Your task to perform on an android device: turn notification dots off Image 0: 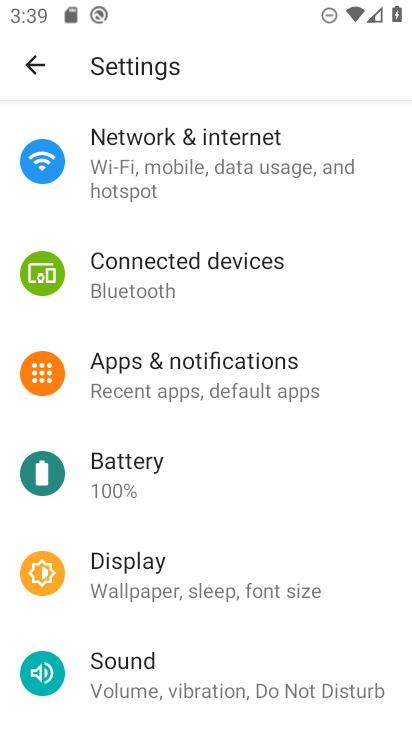
Step 0: drag from (355, 616) to (354, 490)
Your task to perform on an android device: turn notification dots off Image 1: 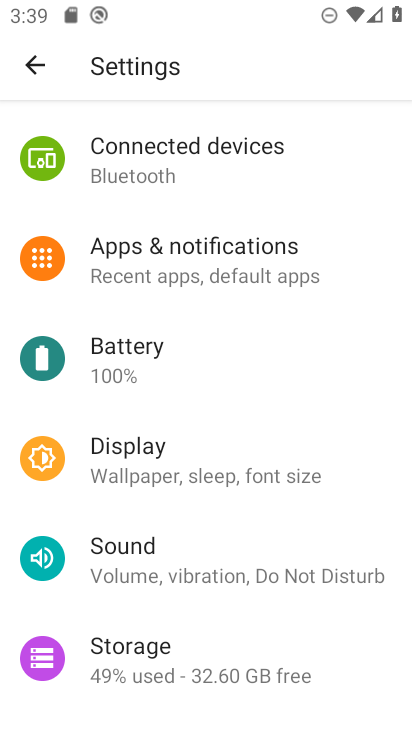
Step 1: drag from (354, 630) to (361, 525)
Your task to perform on an android device: turn notification dots off Image 2: 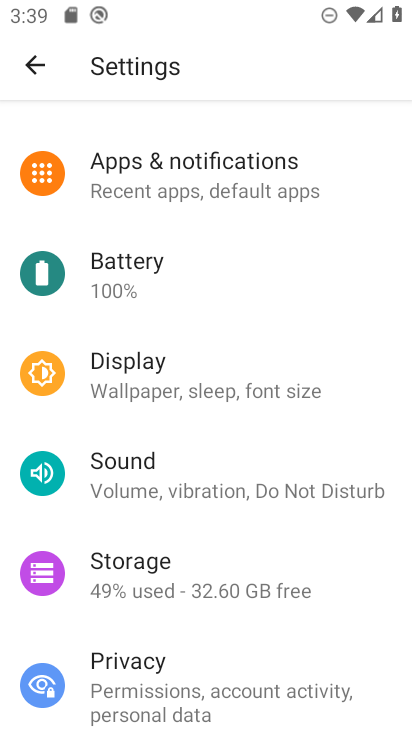
Step 2: drag from (356, 627) to (352, 514)
Your task to perform on an android device: turn notification dots off Image 3: 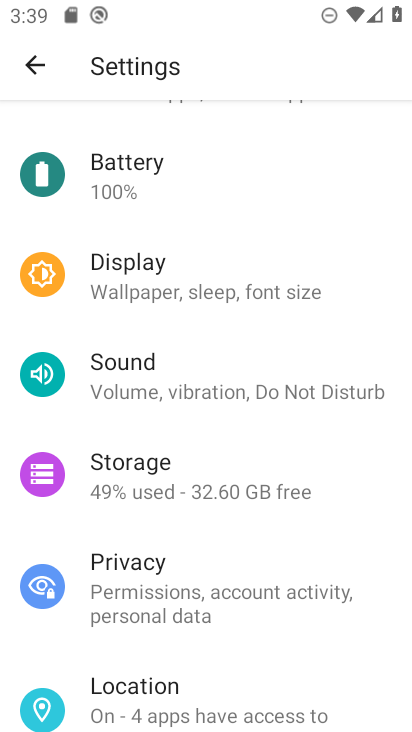
Step 3: drag from (352, 647) to (349, 518)
Your task to perform on an android device: turn notification dots off Image 4: 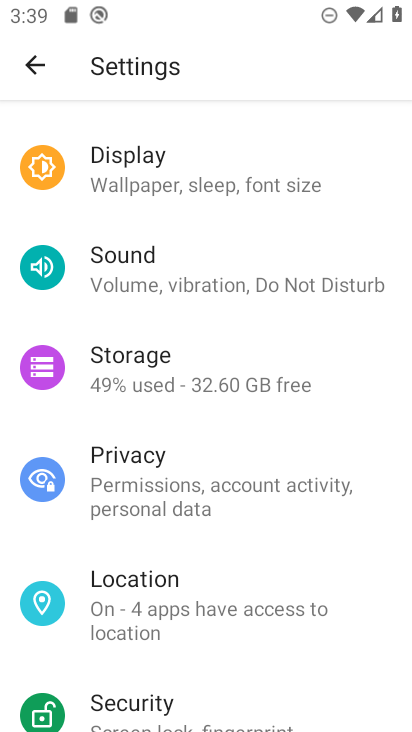
Step 4: drag from (366, 666) to (361, 550)
Your task to perform on an android device: turn notification dots off Image 5: 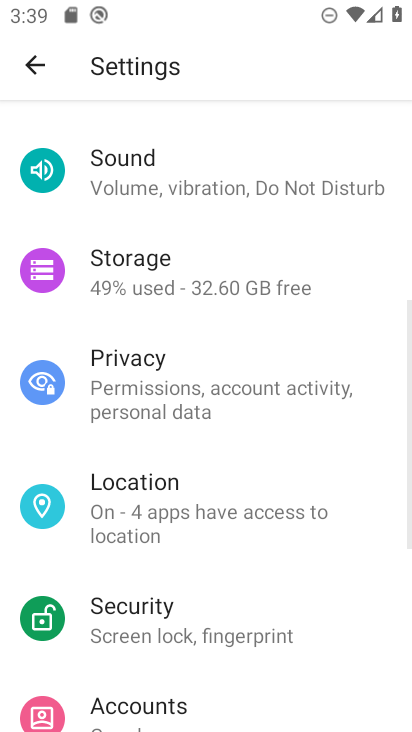
Step 5: drag from (361, 667) to (359, 545)
Your task to perform on an android device: turn notification dots off Image 6: 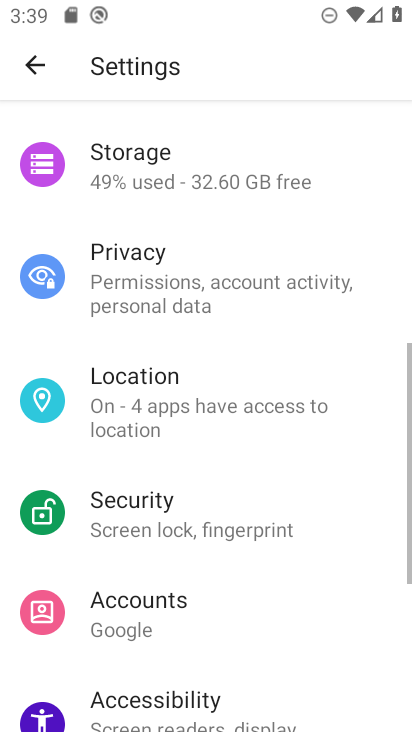
Step 6: drag from (342, 661) to (333, 554)
Your task to perform on an android device: turn notification dots off Image 7: 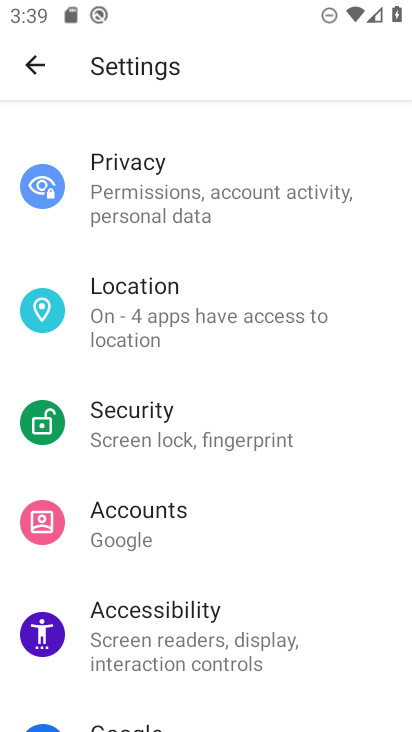
Step 7: drag from (330, 646) to (335, 534)
Your task to perform on an android device: turn notification dots off Image 8: 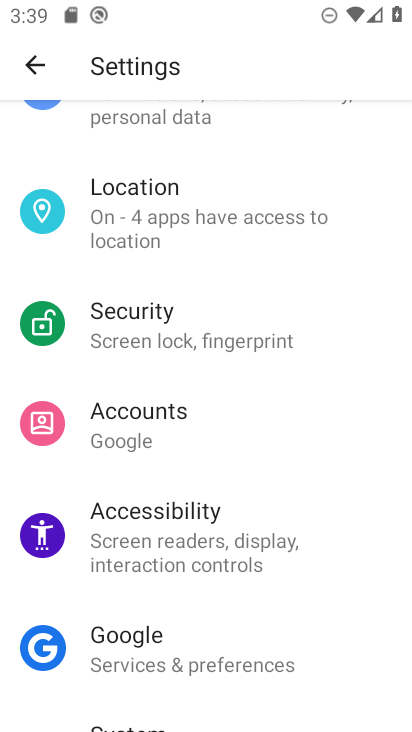
Step 8: drag from (346, 435) to (344, 563)
Your task to perform on an android device: turn notification dots off Image 9: 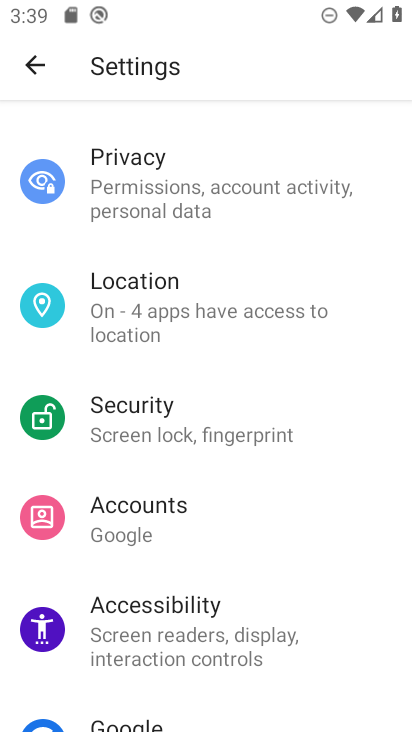
Step 9: drag from (356, 394) to (359, 505)
Your task to perform on an android device: turn notification dots off Image 10: 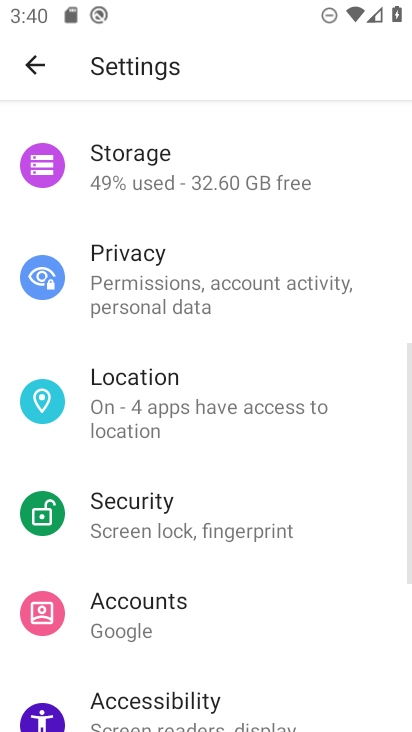
Step 10: drag from (357, 344) to (360, 446)
Your task to perform on an android device: turn notification dots off Image 11: 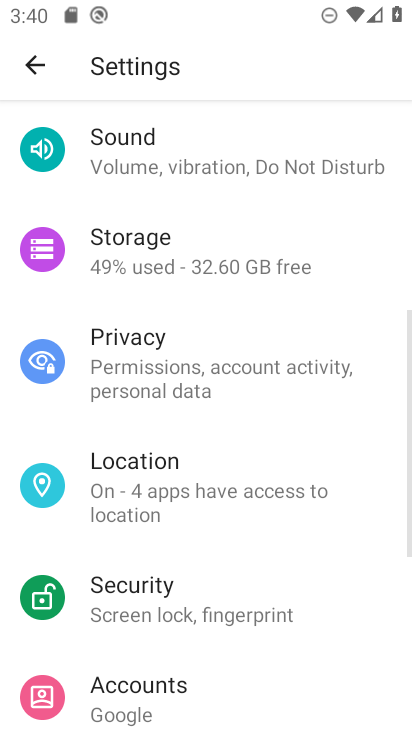
Step 11: drag from (356, 288) to (360, 408)
Your task to perform on an android device: turn notification dots off Image 12: 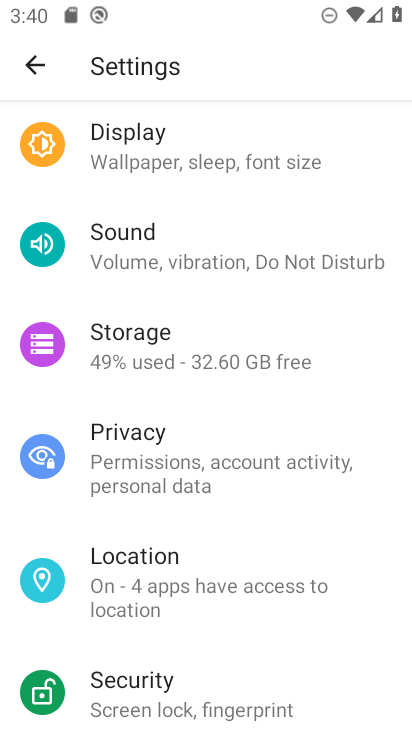
Step 12: drag from (352, 288) to (353, 379)
Your task to perform on an android device: turn notification dots off Image 13: 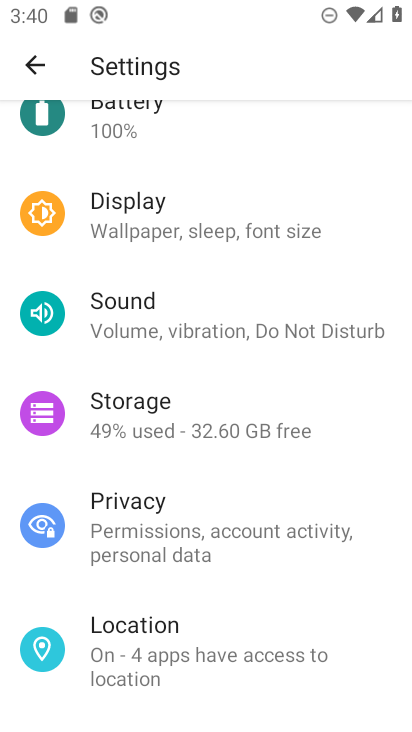
Step 13: drag from (353, 274) to (361, 399)
Your task to perform on an android device: turn notification dots off Image 14: 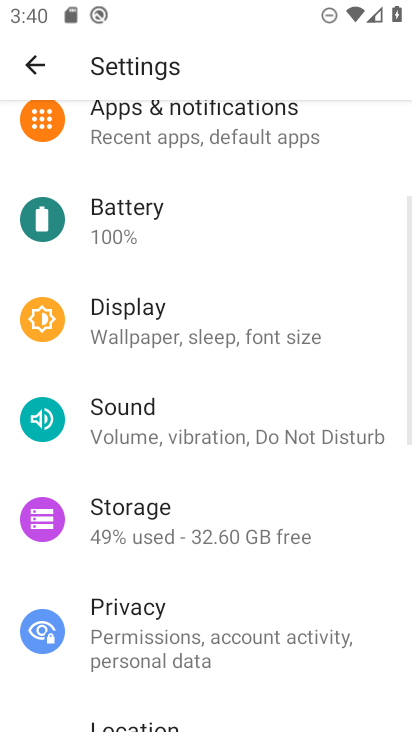
Step 14: drag from (361, 302) to (360, 404)
Your task to perform on an android device: turn notification dots off Image 15: 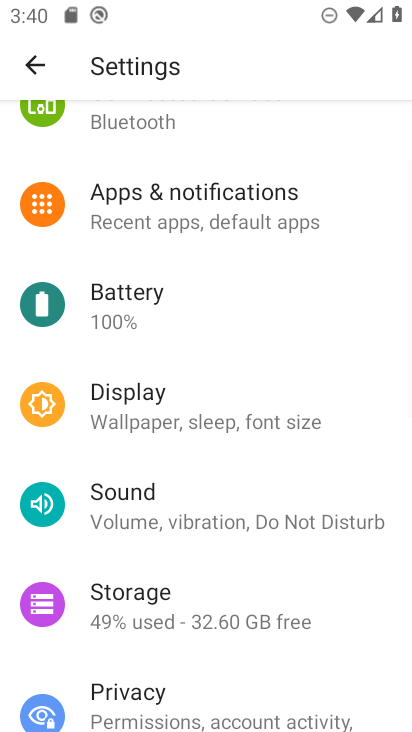
Step 15: drag from (347, 264) to (340, 350)
Your task to perform on an android device: turn notification dots off Image 16: 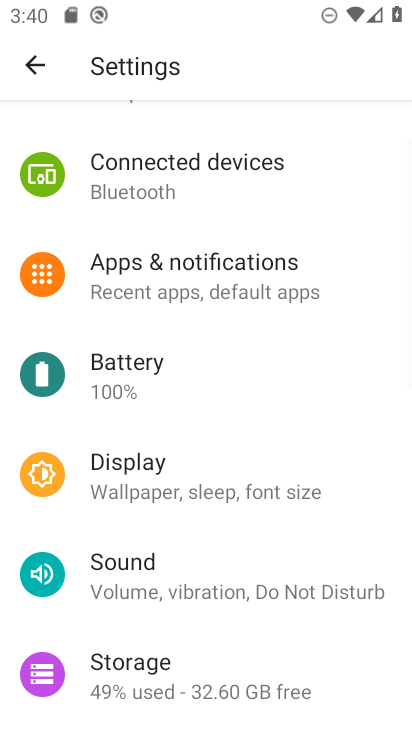
Step 16: click (312, 308)
Your task to perform on an android device: turn notification dots off Image 17: 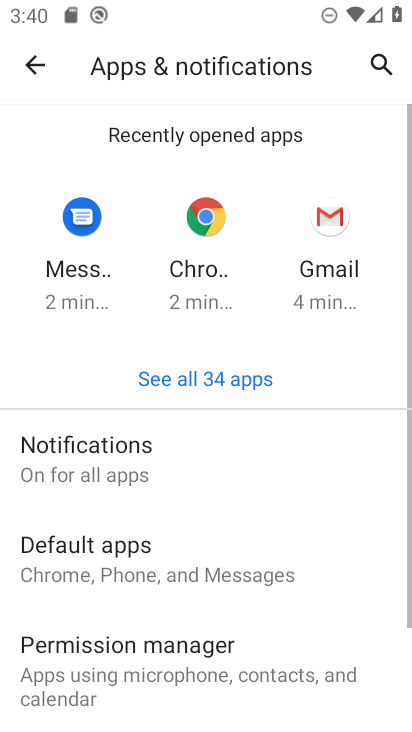
Step 17: drag from (315, 439) to (313, 284)
Your task to perform on an android device: turn notification dots off Image 18: 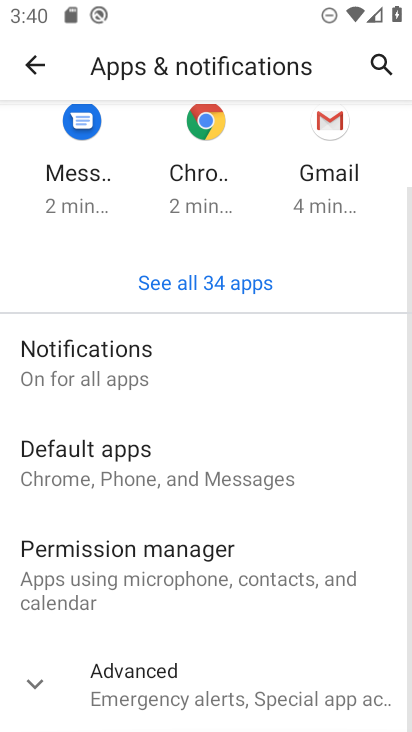
Step 18: click (300, 351)
Your task to perform on an android device: turn notification dots off Image 19: 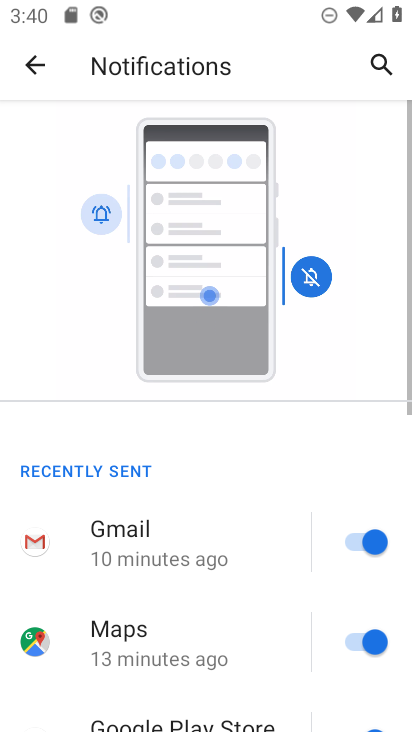
Step 19: drag from (314, 428) to (312, 310)
Your task to perform on an android device: turn notification dots off Image 20: 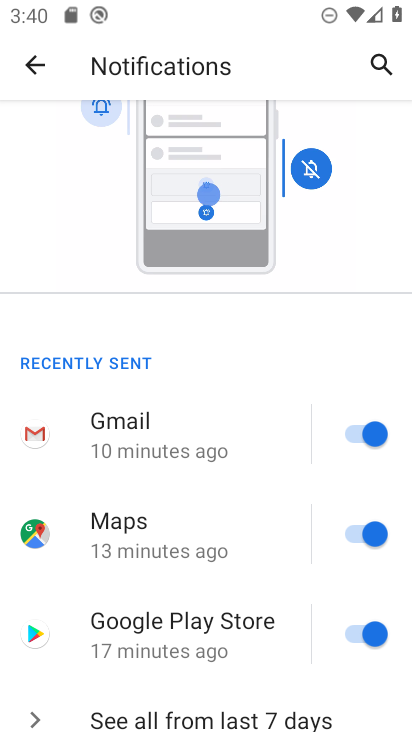
Step 20: drag from (293, 472) to (292, 335)
Your task to perform on an android device: turn notification dots off Image 21: 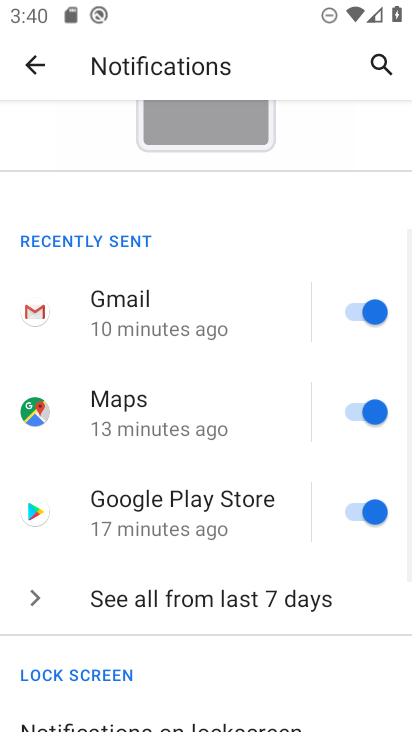
Step 21: drag from (284, 533) to (277, 382)
Your task to perform on an android device: turn notification dots off Image 22: 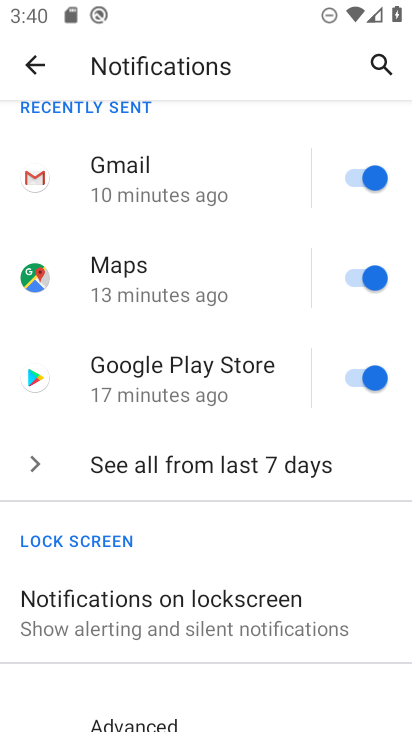
Step 22: drag from (269, 577) to (275, 413)
Your task to perform on an android device: turn notification dots off Image 23: 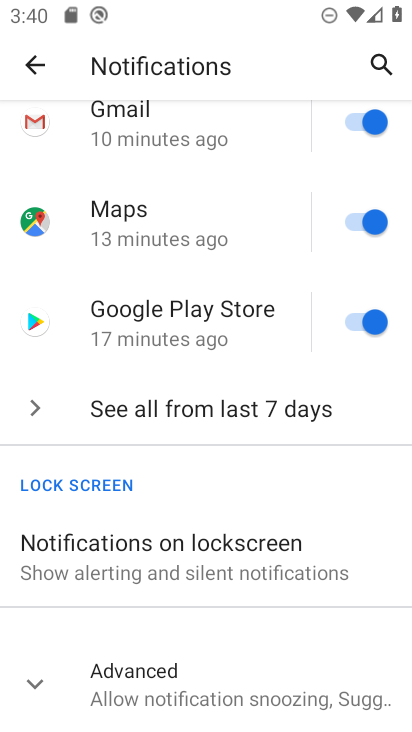
Step 23: drag from (271, 604) to (271, 454)
Your task to perform on an android device: turn notification dots off Image 24: 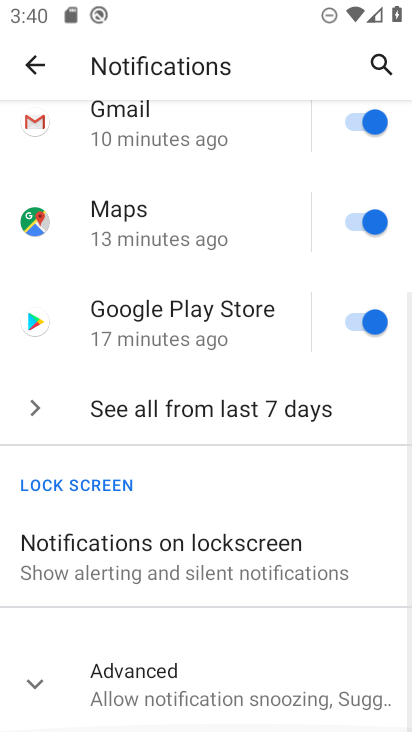
Step 24: click (240, 690)
Your task to perform on an android device: turn notification dots off Image 25: 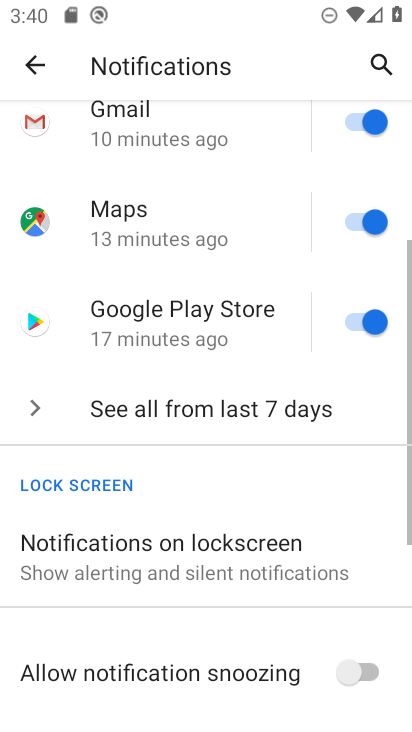
Step 25: drag from (275, 638) to (281, 464)
Your task to perform on an android device: turn notification dots off Image 26: 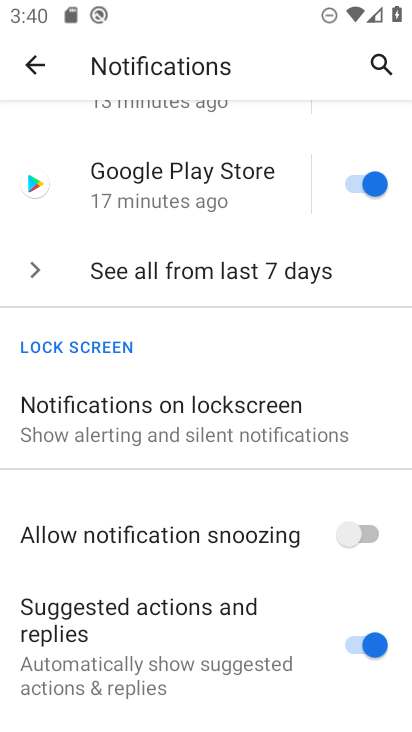
Step 26: drag from (277, 671) to (276, 486)
Your task to perform on an android device: turn notification dots off Image 27: 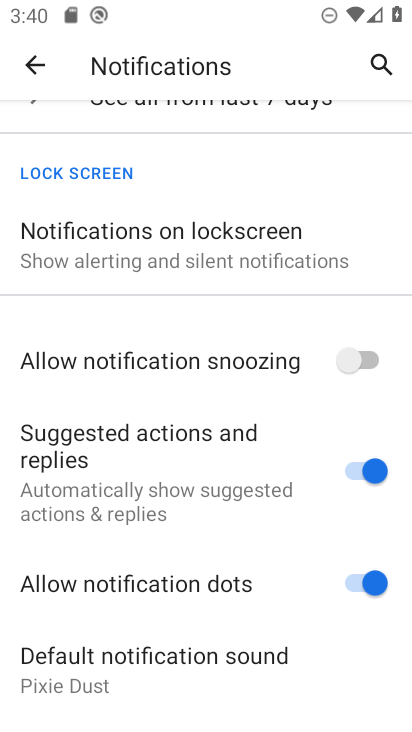
Step 27: drag from (276, 668) to (275, 540)
Your task to perform on an android device: turn notification dots off Image 28: 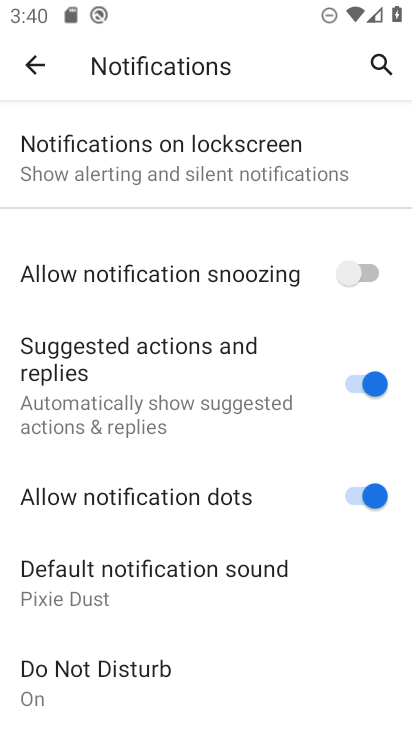
Step 28: click (365, 496)
Your task to perform on an android device: turn notification dots off Image 29: 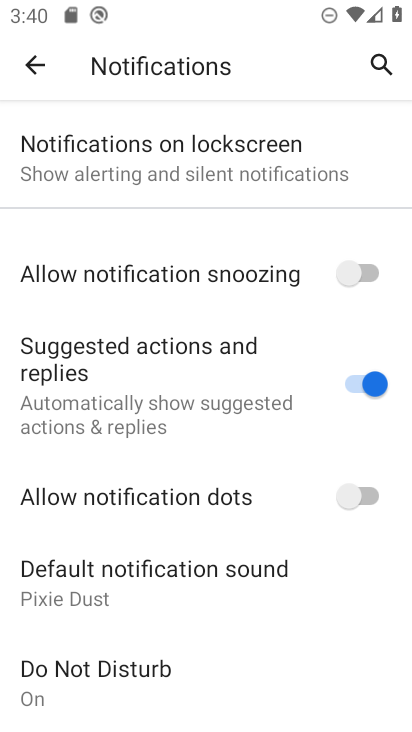
Step 29: task complete